Your task to perform on an android device: turn notification dots on Image 0: 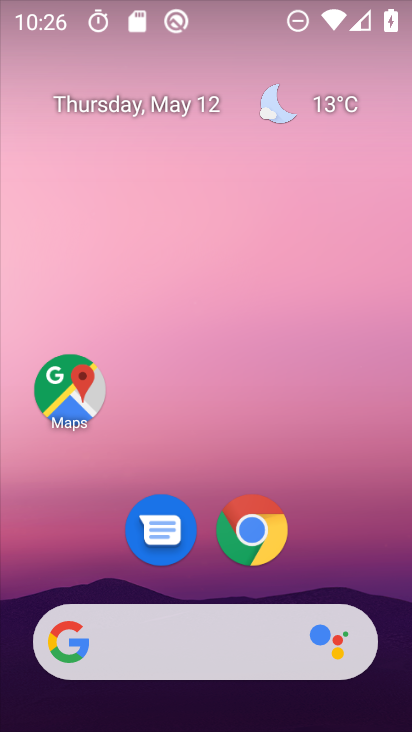
Step 0: drag from (312, 488) to (306, 158)
Your task to perform on an android device: turn notification dots on Image 1: 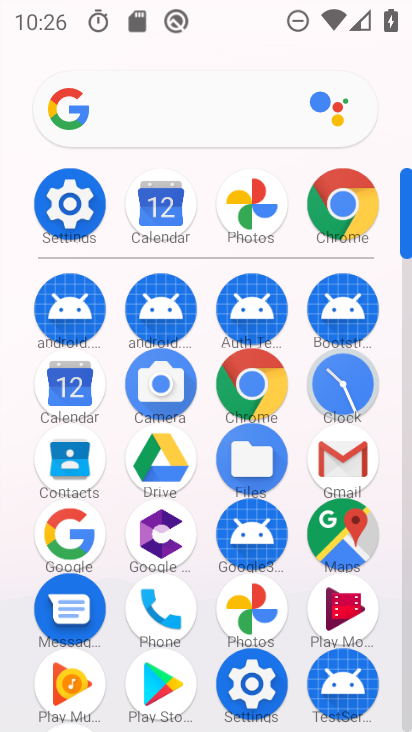
Step 1: click (54, 218)
Your task to perform on an android device: turn notification dots on Image 2: 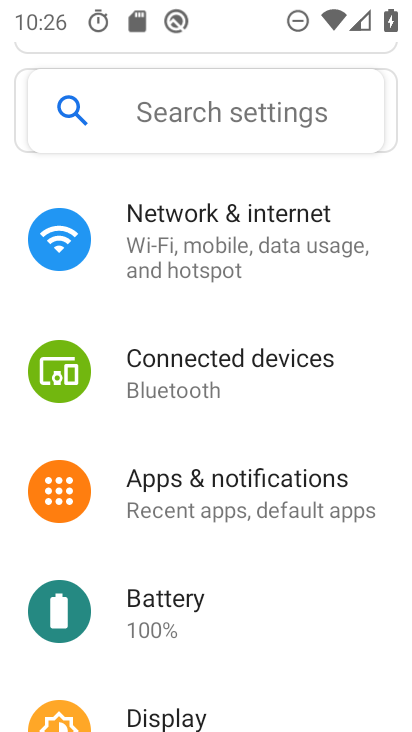
Step 2: click (139, 512)
Your task to perform on an android device: turn notification dots on Image 3: 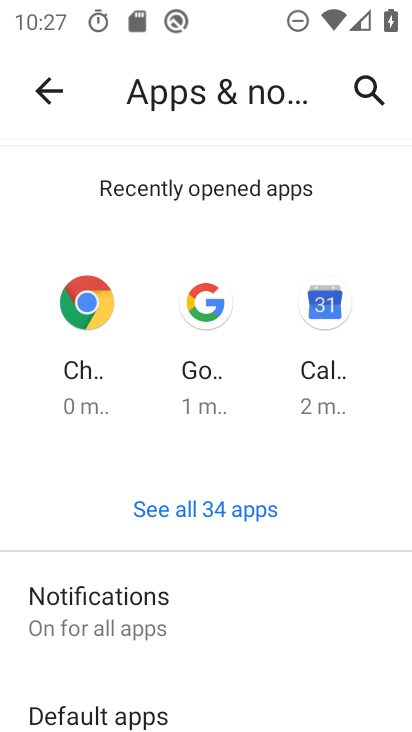
Step 3: click (124, 607)
Your task to perform on an android device: turn notification dots on Image 4: 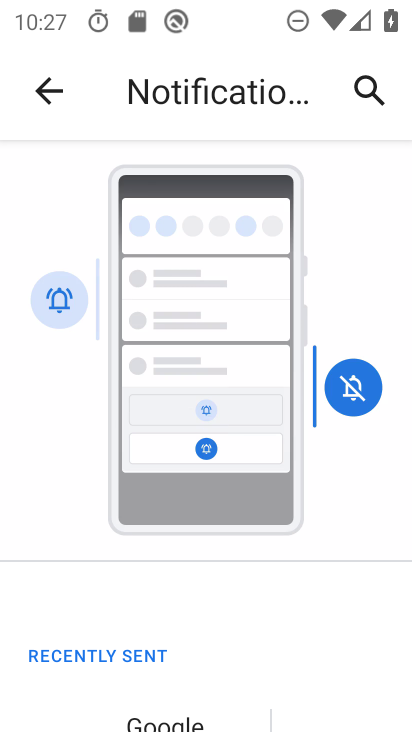
Step 4: drag from (194, 660) to (264, 281)
Your task to perform on an android device: turn notification dots on Image 5: 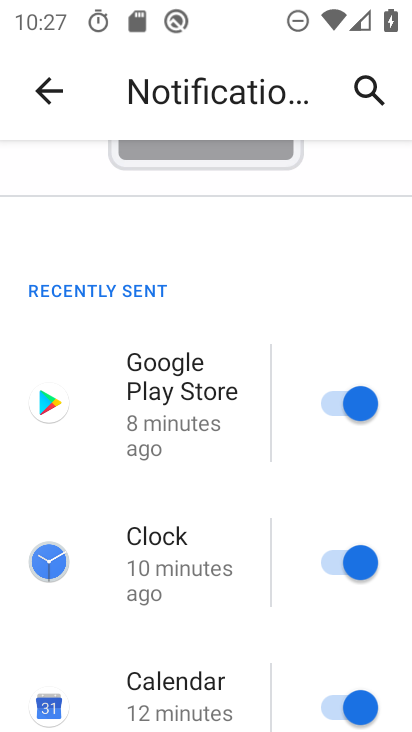
Step 5: drag from (255, 640) to (314, 192)
Your task to perform on an android device: turn notification dots on Image 6: 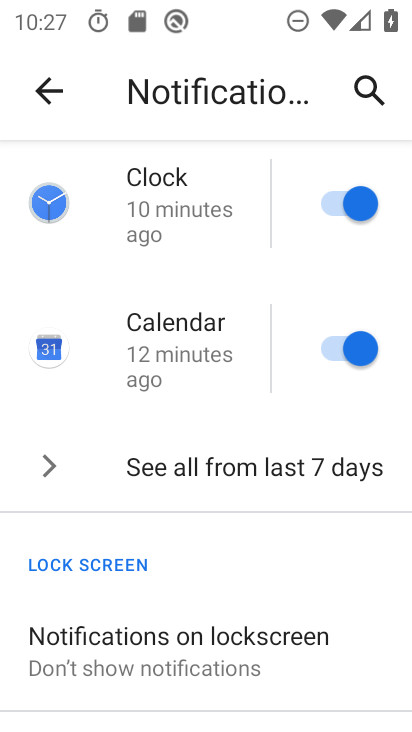
Step 6: drag from (240, 553) to (266, 112)
Your task to perform on an android device: turn notification dots on Image 7: 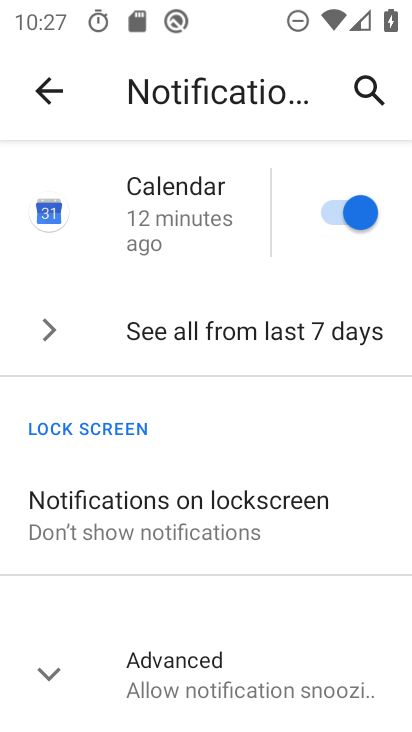
Step 7: click (202, 666)
Your task to perform on an android device: turn notification dots on Image 8: 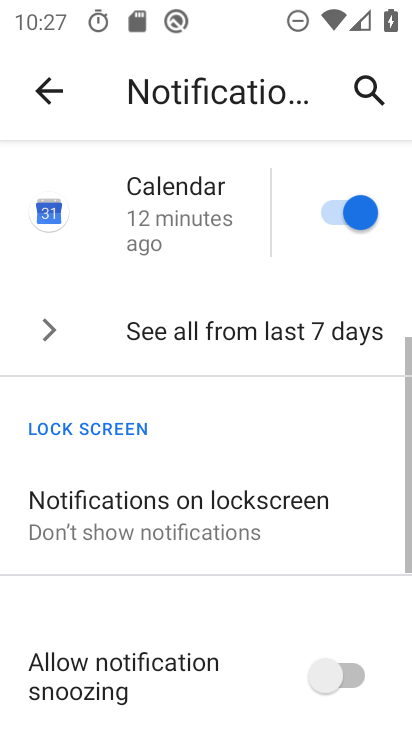
Step 8: drag from (200, 688) to (267, 273)
Your task to perform on an android device: turn notification dots on Image 9: 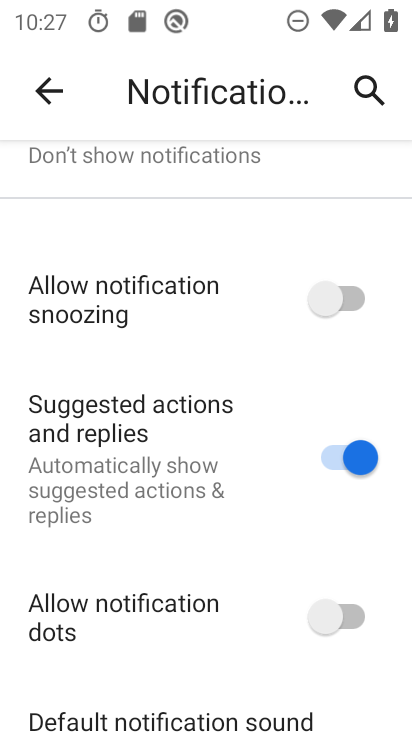
Step 9: drag from (203, 636) to (319, 147)
Your task to perform on an android device: turn notification dots on Image 10: 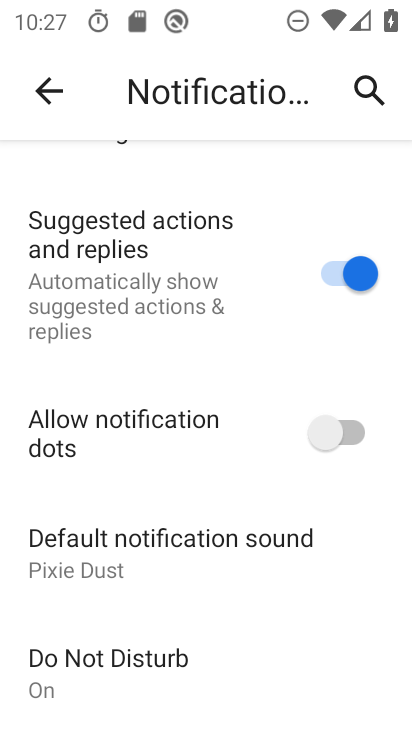
Step 10: drag from (218, 260) to (160, 643)
Your task to perform on an android device: turn notification dots on Image 11: 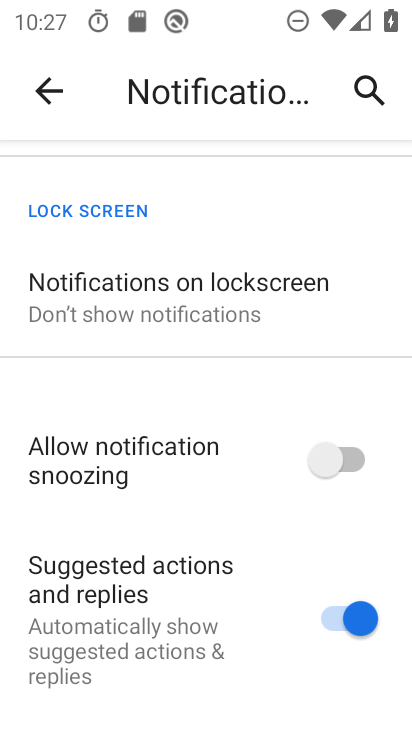
Step 11: drag from (215, 675) to (274, 235)
Your task to perform on an android device: turn notification dots on Image 12: 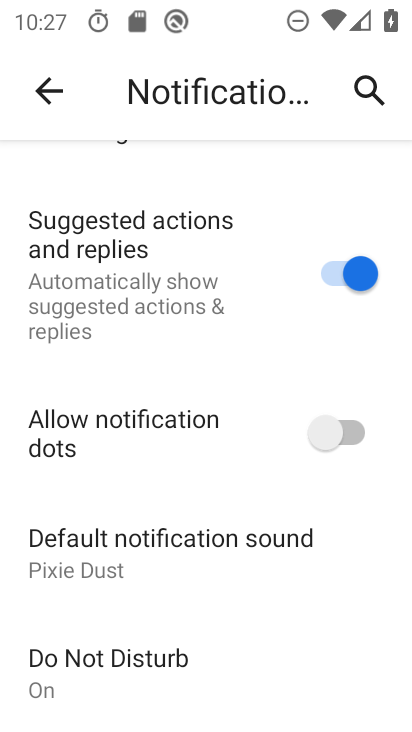
Step 12: click (342, 432)
Your task to perform on an android device: turn notification dots on Image 13: 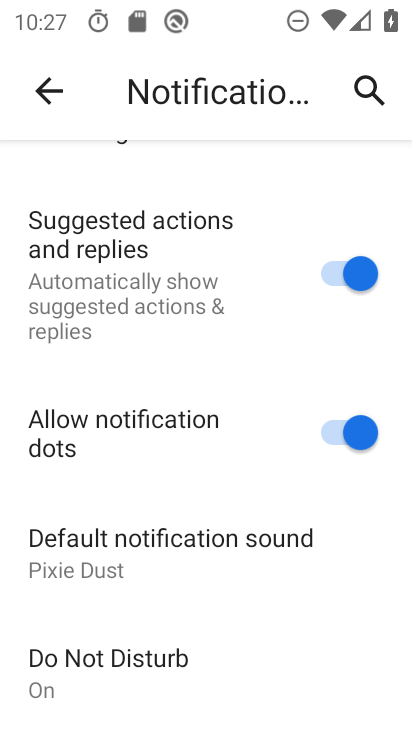
Step 13: task complete